Your task to perform on an android device: toggle sleep mode Image 0: 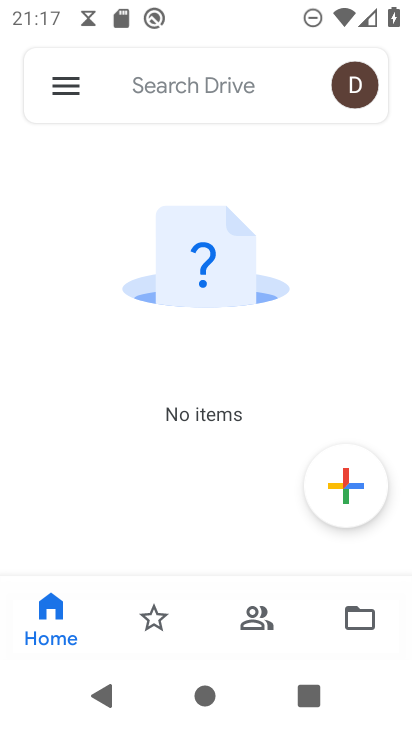
Step 0: press home button
Your task to perform on an android device: toggle sleep mode Image 1: 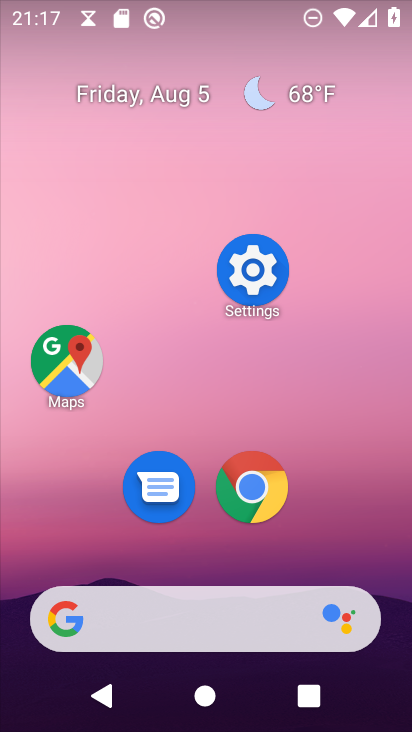
Step 1: click (255, 270)
Your task to perform on an android device: toggle sleep mode Image 2: 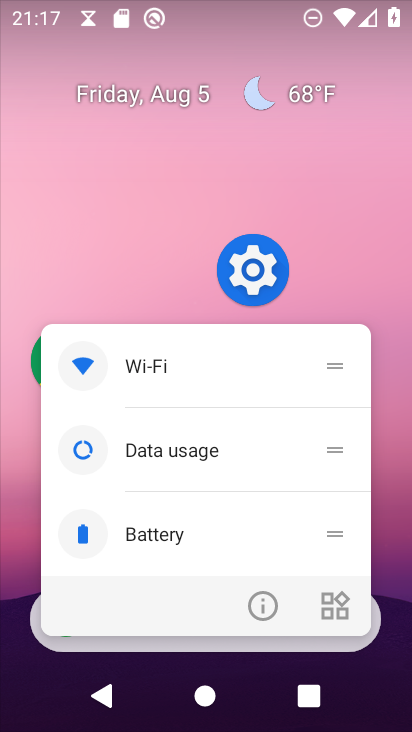
Step 2: click (255, 269)
Your task to perform on an android device: toggle sleep mode Image 3: 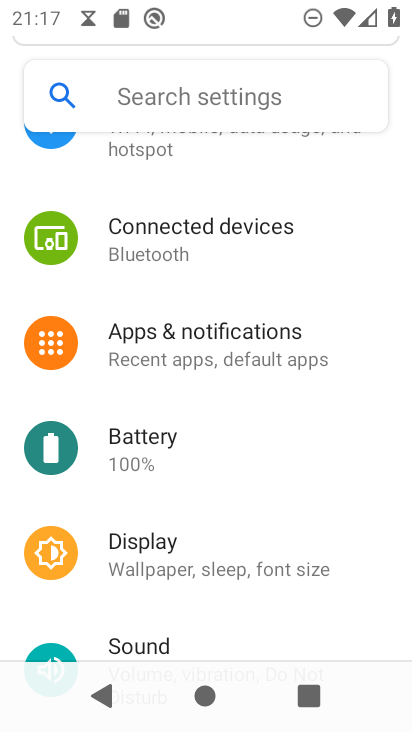
Step 3: click (187, 549)
Your task to perform on an android device: toggle sleep mode Image 4: 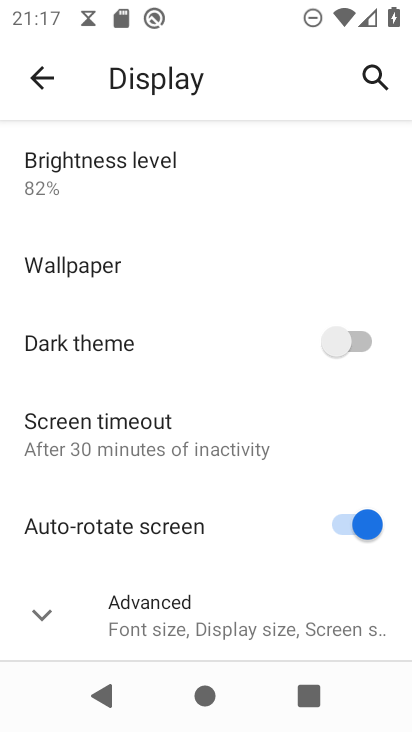
Step 4: task complete